Your task to perform on an android device: add a label to a message in the gmail app Image 0: 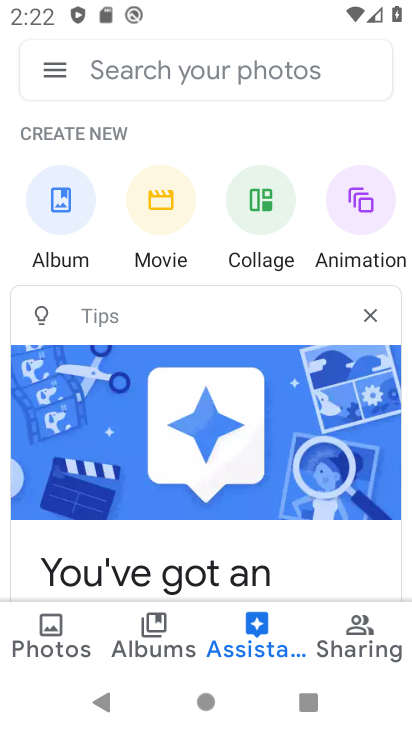
Step 0: press home button
Your task to perform on an android device: add a label to a message in the gmail app Image 1: 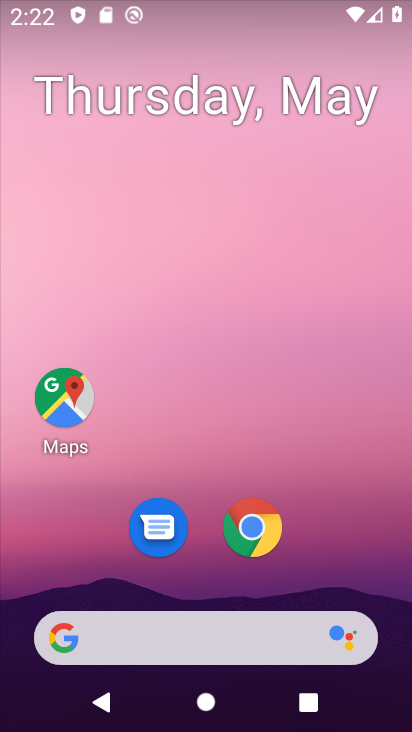
Step 1: drag from (369, 594) to (326, 81)
Your task to perform on an android device: add a label to a message in the gmail app Image 2: 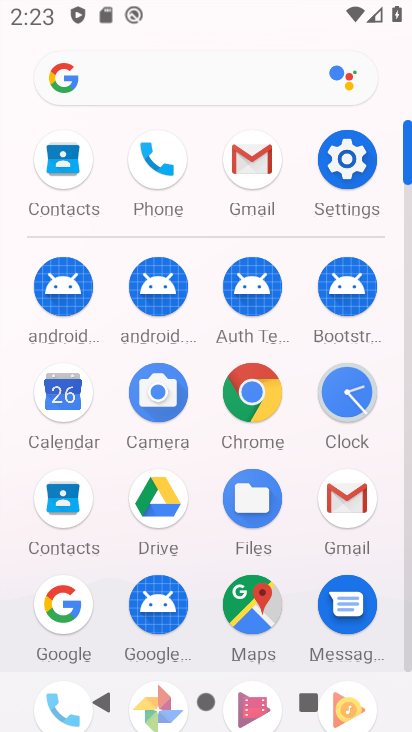
Step 2: click (268, 153)
Your task to perform on an android device: add a label to a message in the gmail app Image 3: 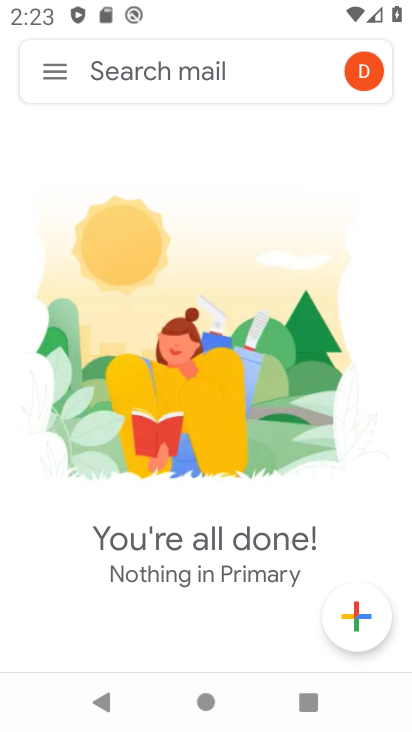
Step 3: task complete